Your task to perform on an android device: Go to notification settings Image 0: 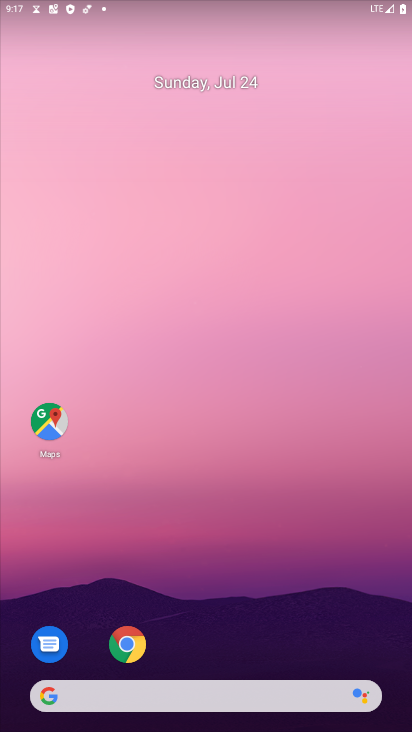
Step 0: drag from (270, 566) to (233, 63)
Your task to perform on an android device: Go to notification settings Image 1: 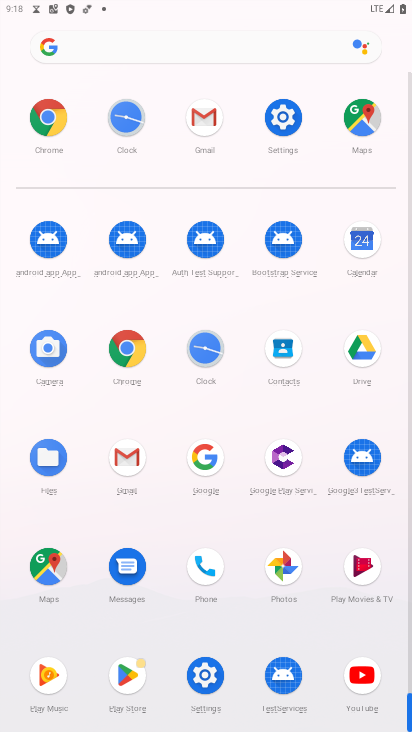
Step 1: click (204, 663)
Your task to perform on an android device: Go to notification settings Image 2: 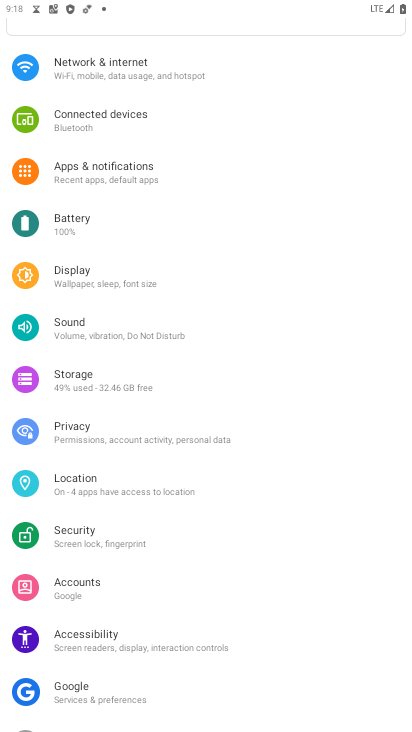
Step 2: drag from (143, 545) to (140, 226)
Your task to perform on an android device: Go to notification settings Image 3: 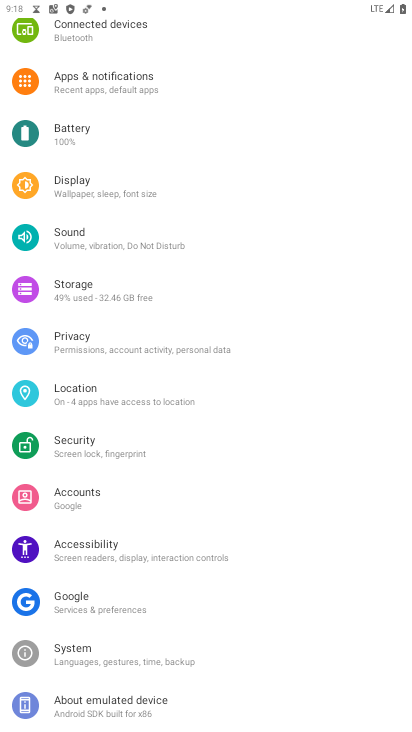
Step 3: click (113, 73)
Your task to perform on an android device: Go to notification settings Image 4: 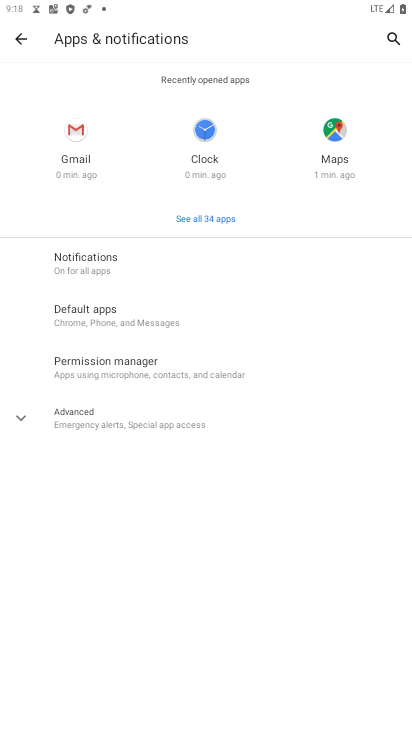
Step 4: click (99, 274)
Your task to perform on an android device: Go to notification settings Image 5: 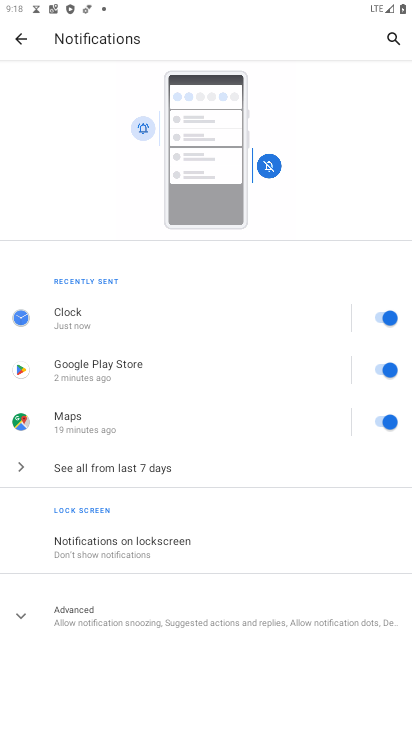
Step 5: click (154, 541)
Your task to perform on an android device: Go to notification settings Image 6: 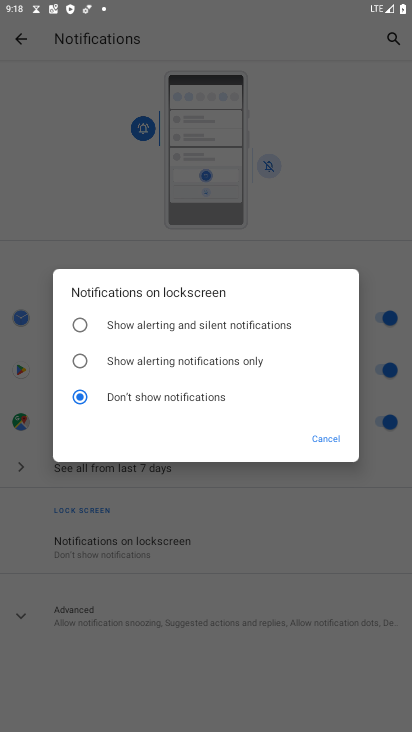
Step 6: click (327, 148)
Your task to perform on an android device: Go to notification settings Image 7: 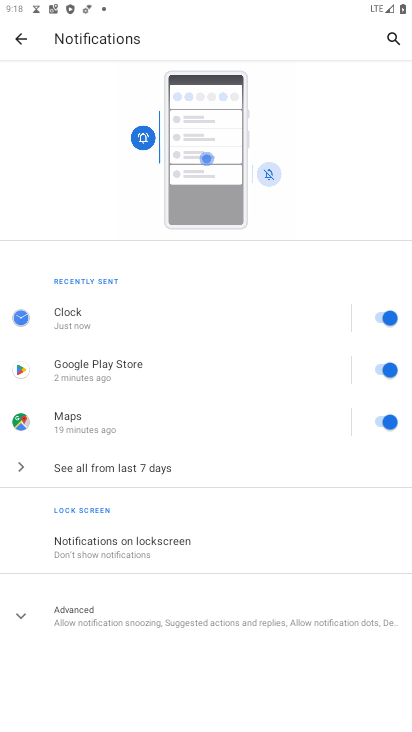
Step 7: task complete